Your task to perform on an android device: turn pop-ups off in chrome Image 0: 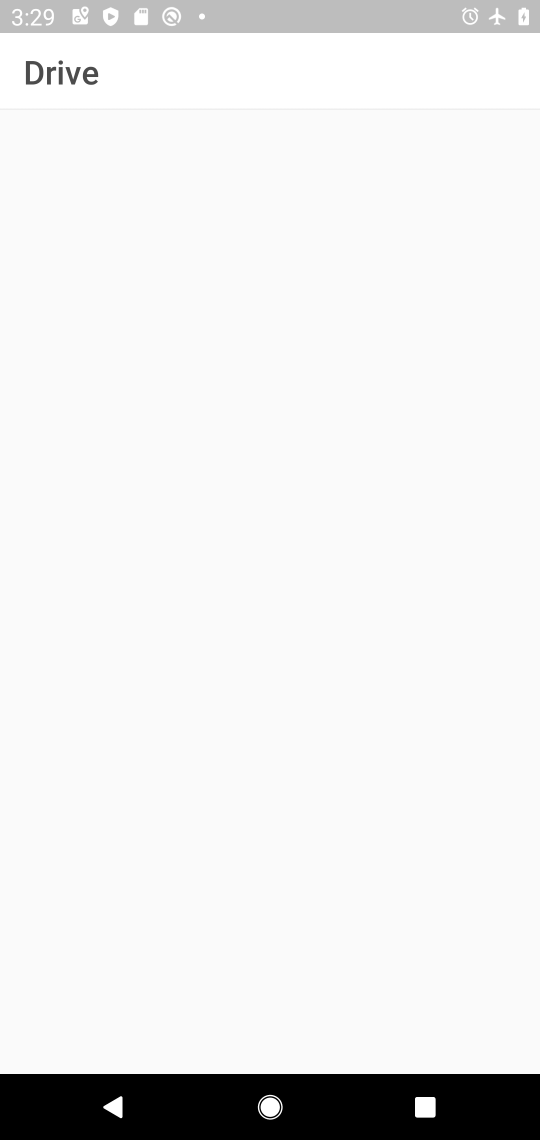
Step 0: press home button
Your task to perform on an android device: turn pop-ups off in chrome Image 1: 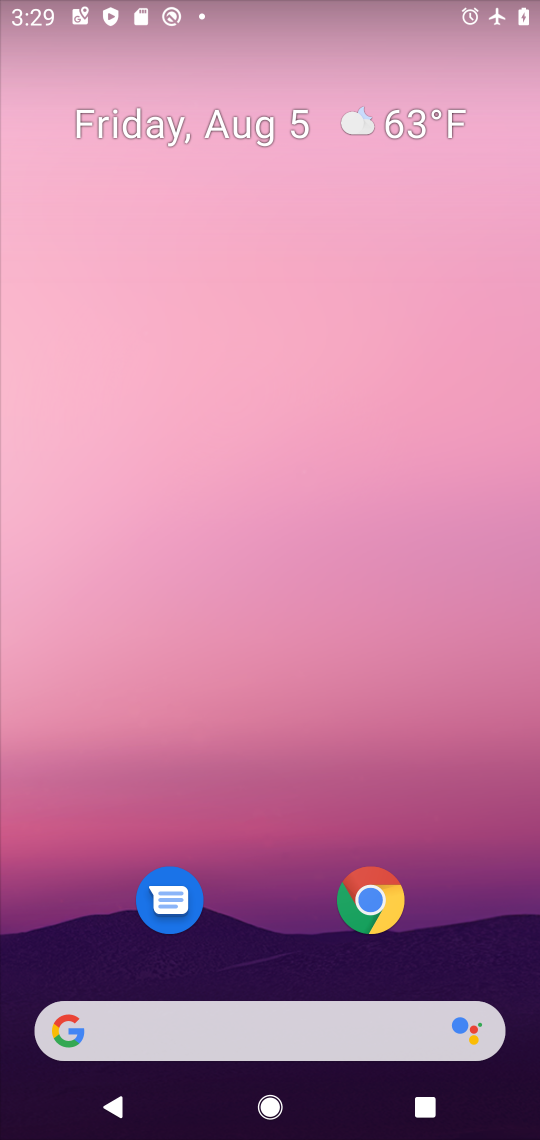
Step 1: click (354, 923)
Your task to perform on an android device: turn pop-ups off in chrome Image 2: 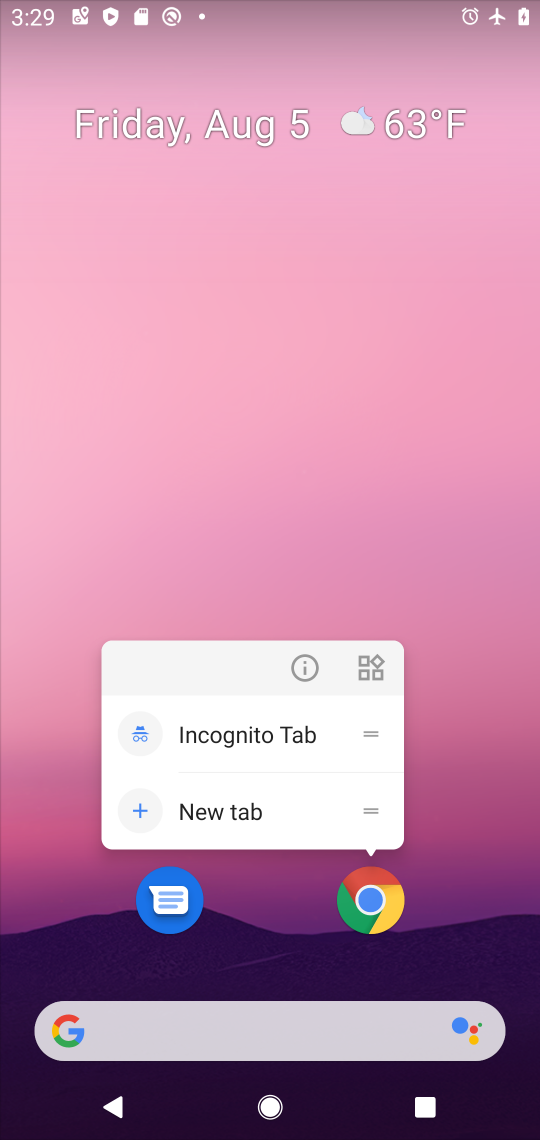
Step 2: click (369, 907)
Your task to perform on an android device: turn pop-ups off in chrome Image 3: 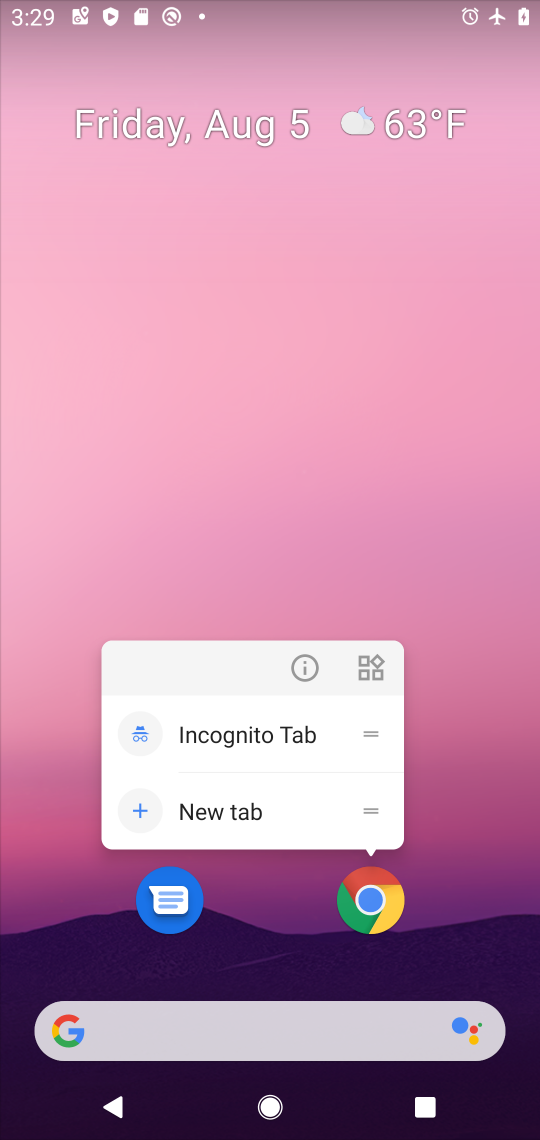
Step 3: click (381, 893)
Your task to perform on an android device: turn pop-ups off in chrome Image 4: 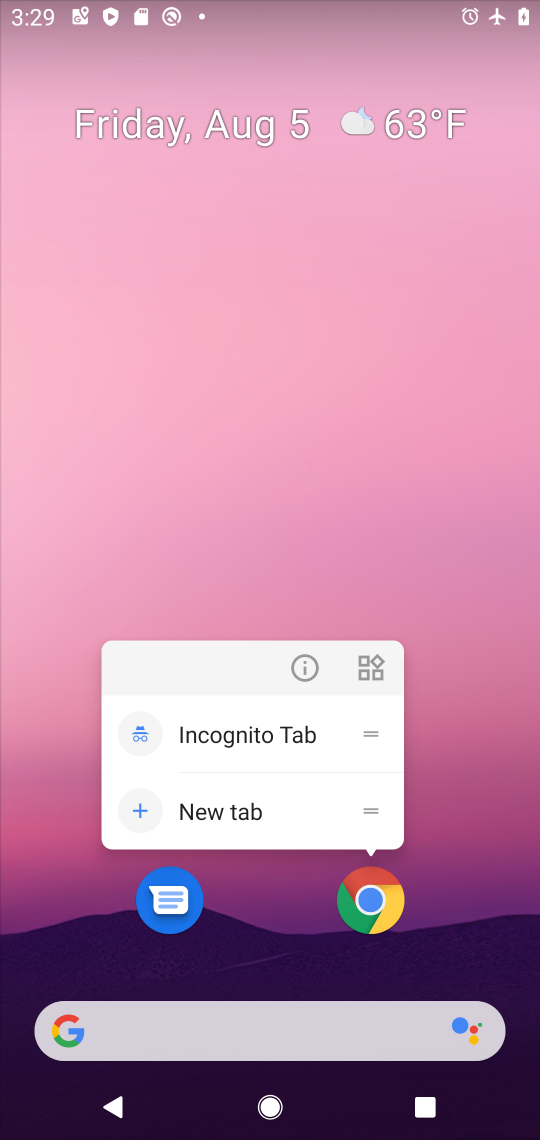
Step 4: click (369, 900)
Your task to perform on an android device: turn pop-ups off in chrome Image 5: 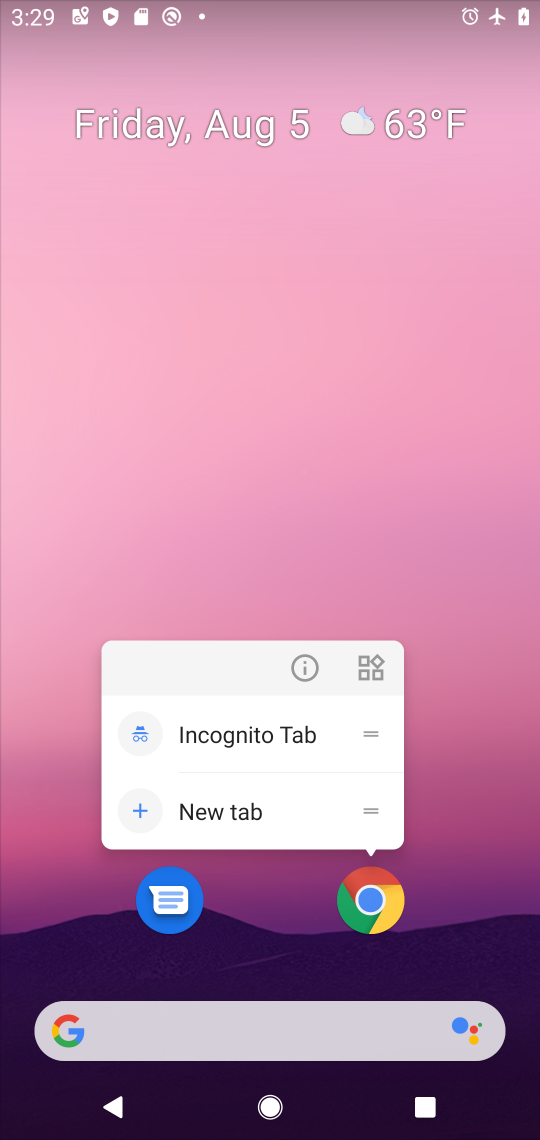
Step 5: click (378, 905)
Your task to perform on an android device: turn pop-ups off in chrome Image 6: 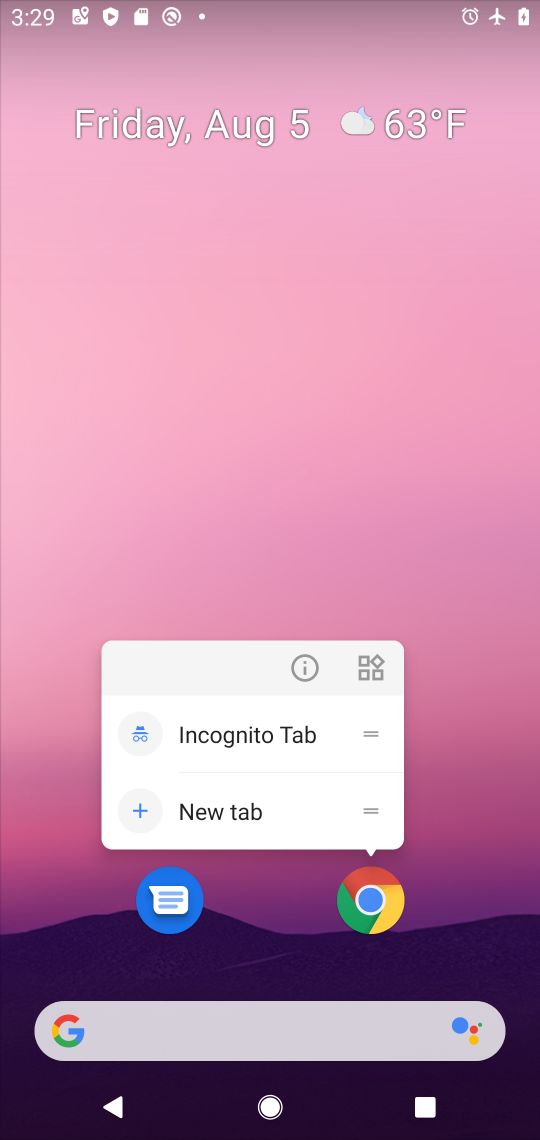
Step 6: click (376, 886)
Your task to perform on an android device: turn pop-ups off in chrome Image 7: 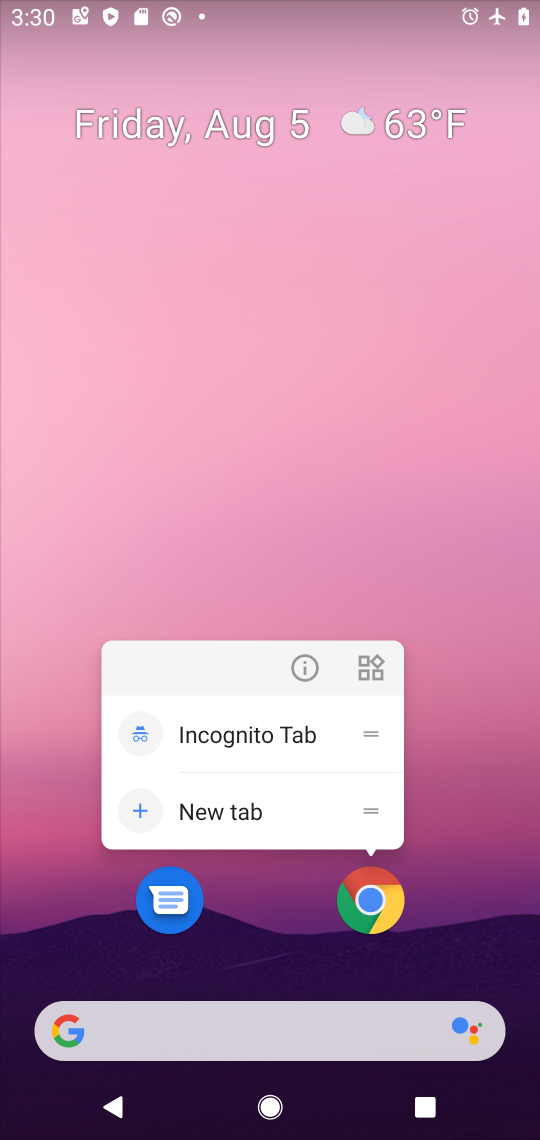
Step 7: click (376, 904)
Your task to perform on an android device: turn pop-ups off in chrome Image 8: 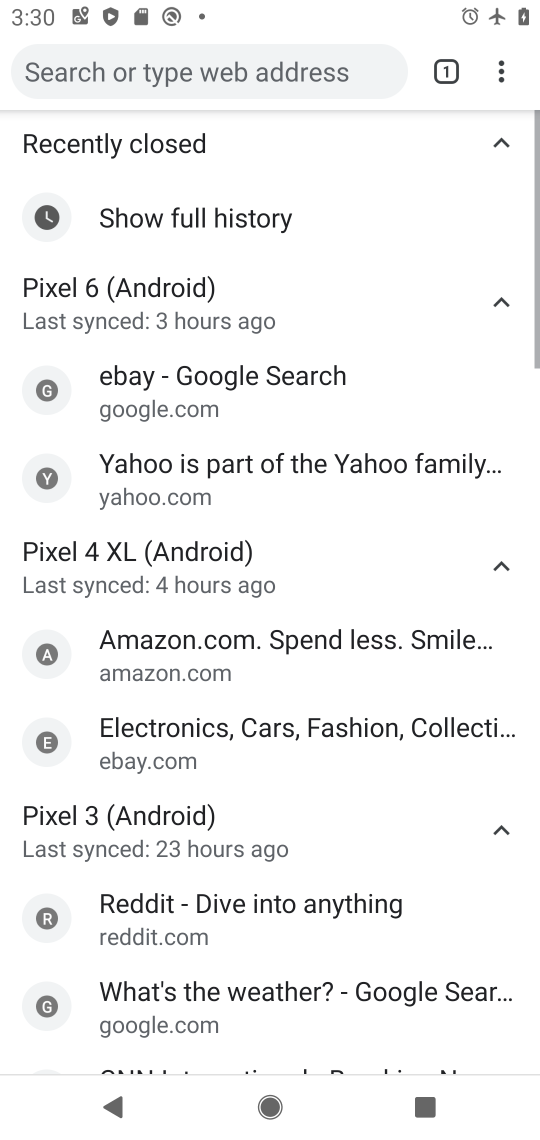
Step 8: drag from (500, 75) to (273, 601)
Your task to perform on an android device: turn pop-ups off in chrome Image 9: 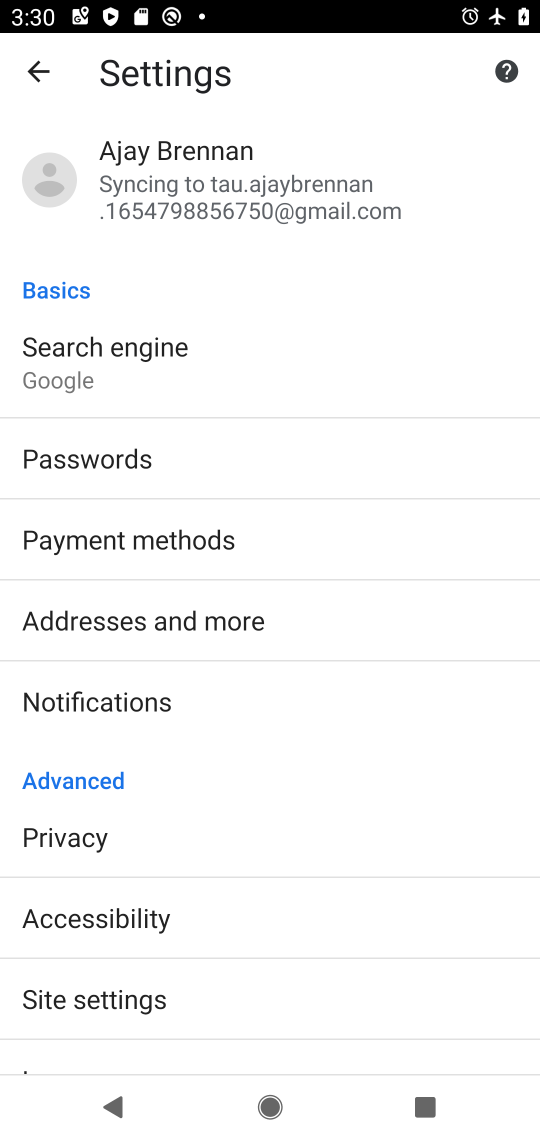
Step 9: drag from (248, 957) to (335, 299)
Your task to perform on an android device: turn pop-ups off in chrome Image 10: 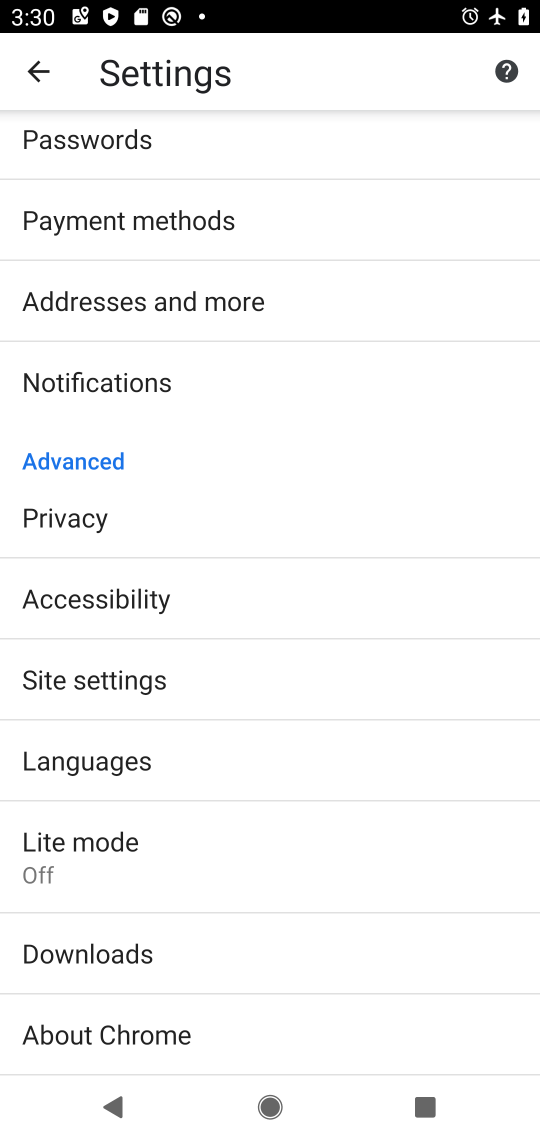
Step 10: click (132, 673)
Your task to perform on an android device: turn pop-ups off in chrome Image 11: 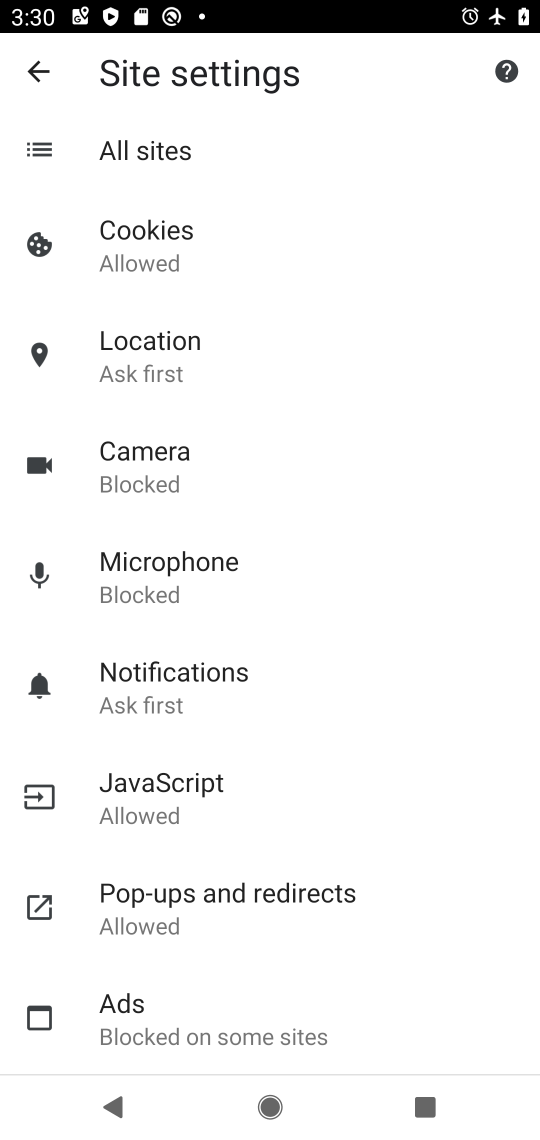
Step 11: click (287, 902)
Your task to perform on an android device: turn pop-ups off in chrome Image 12: 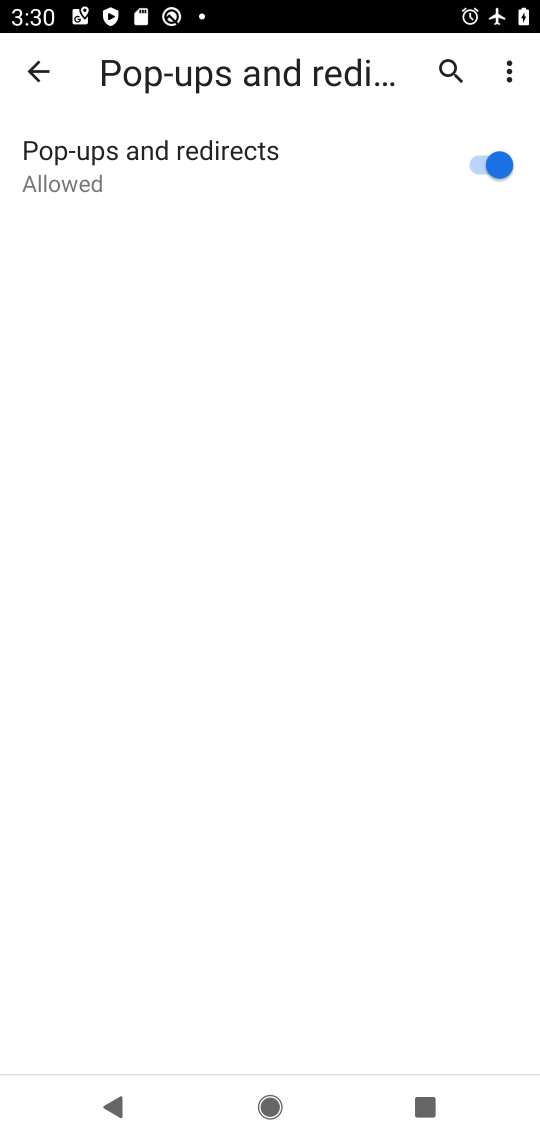
Step 12: click (486, 174)
Your task to perform on an android device: turn pop-ups off in chrome Image 13: 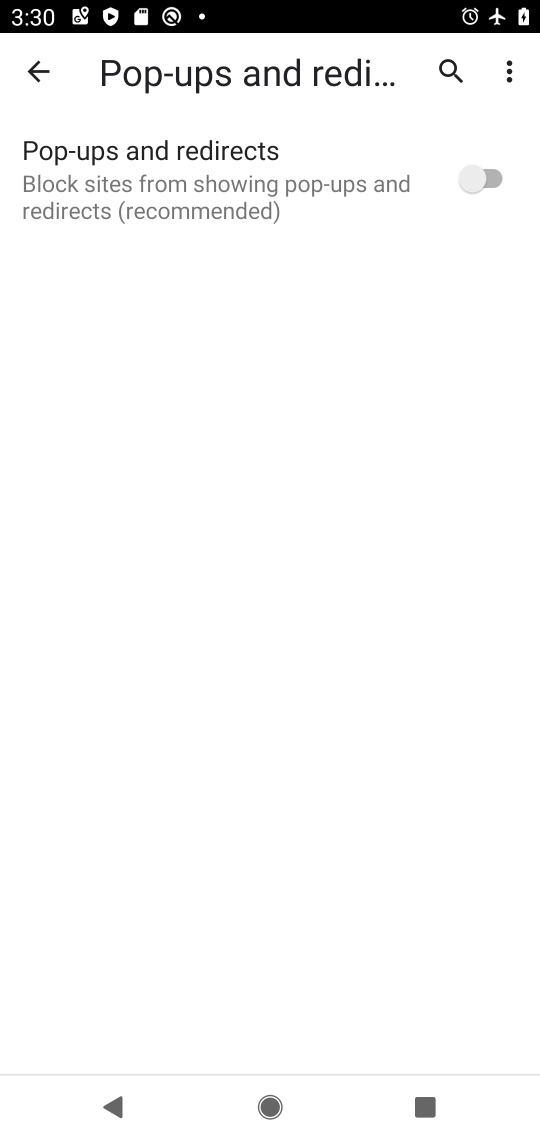
Step 13: task complete